Your task to perform on an android device: Go to Maps Image 0: 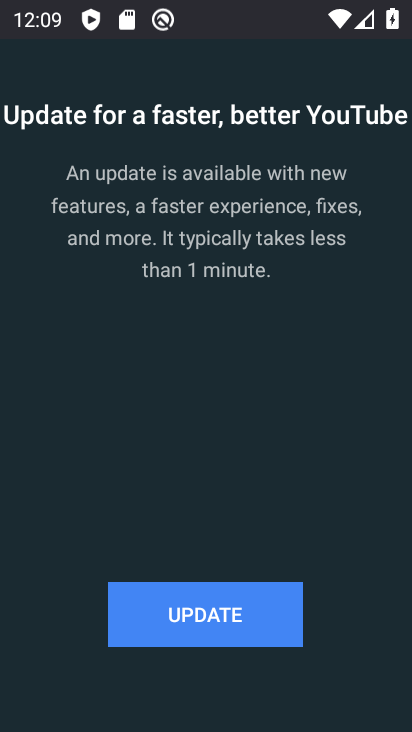
Step 0: press home button
Your task to perform on an android device: Go to Maps Image 1: 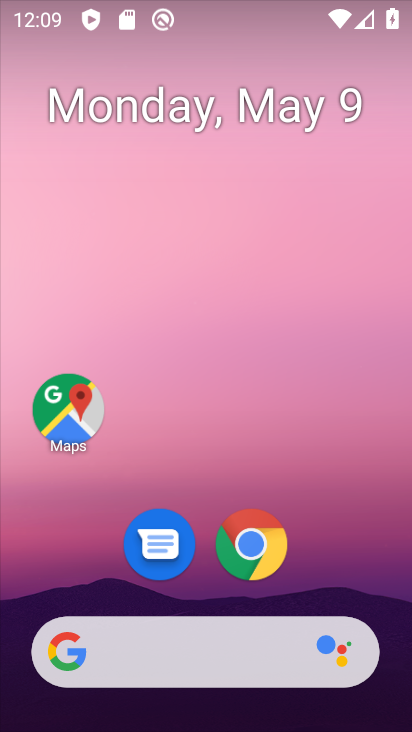
Step 1: click (73, 386)
Your task to perform on an android device: Go to Maps Image 2: 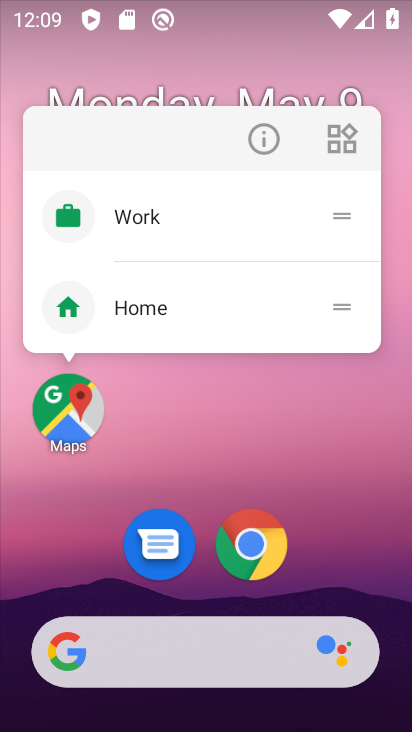
Step 2: click (83, 387)
Your task to perform on an android device: Go to Maps Image 3: 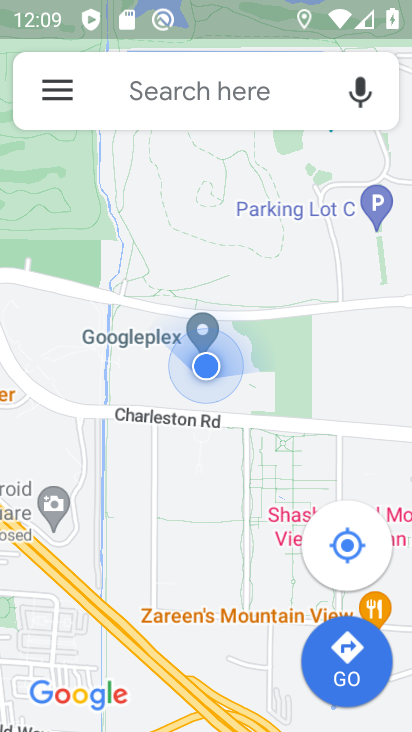
Step 3: task complete